Your task to perform on an android device: turn off notifications in google photos Image 0: 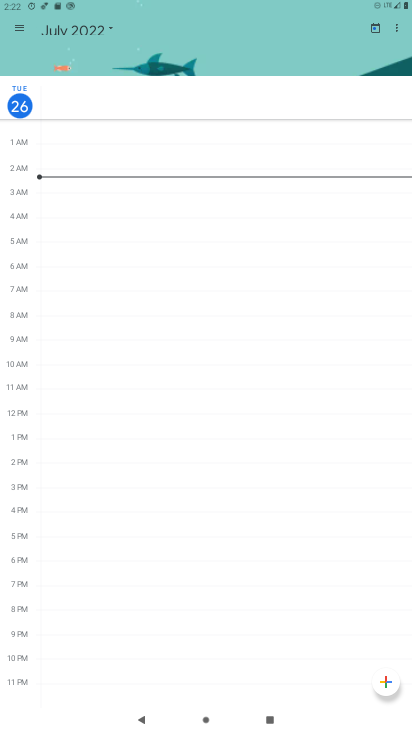
Step 0: press home button
Your task to perform on an android device: turn off notifications in google photos Image 1: 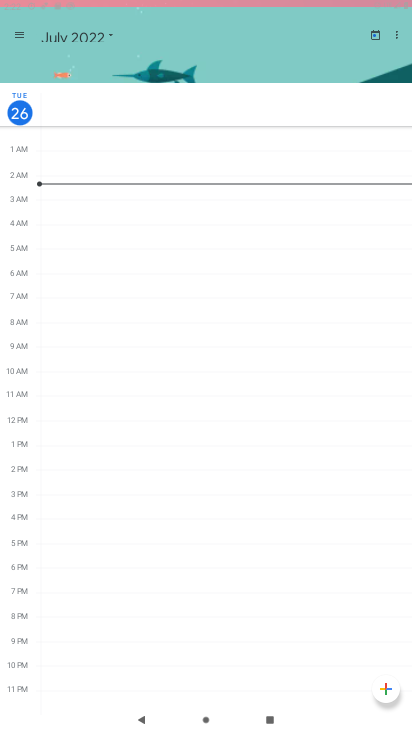
Step 1: drag from (350, 681) to (217, 34)
Your task to perform on an android device: turn off notifications in google photos Image 2: 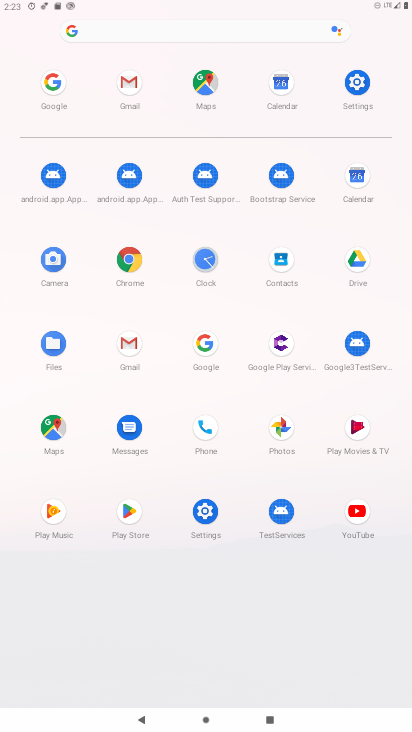
Step 2: click (277, 416)
Your task to perform on an android device: turn off notifications in google photos Image 3: 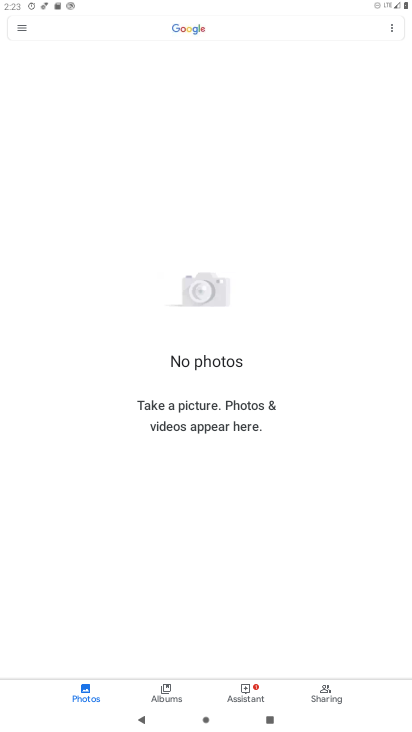
Step 3: click (15, 32)
Your task to perform on an android device: turn off notifications in google photos Image 4: 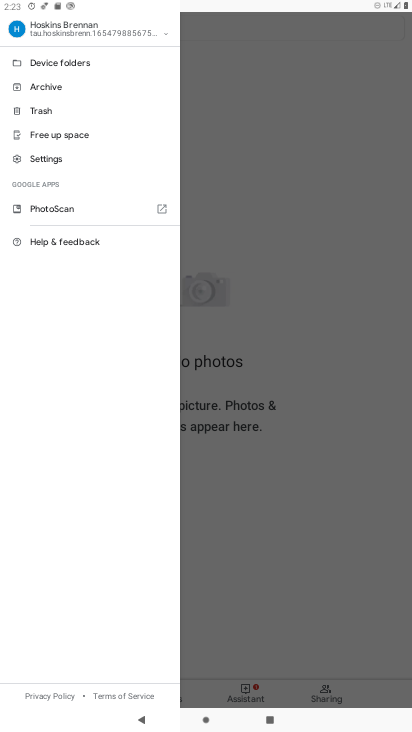
Step 4: click (52, 164)
Your task to perform on an android device: turn off notifications in google photos Image 5: 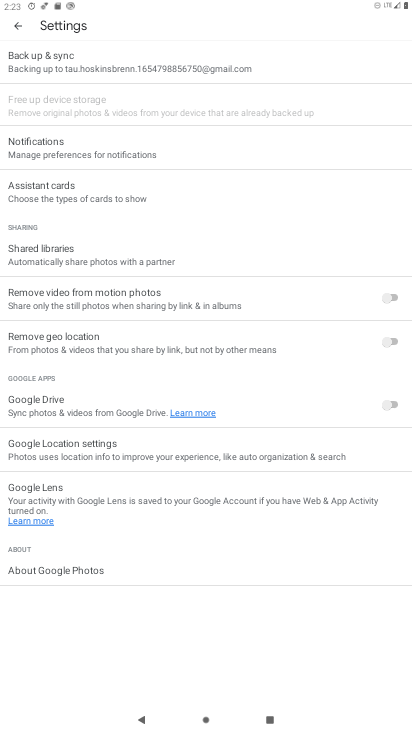
Step 5: click (56, 143)
Your task to perform on an android device: turn off notifications in google photos Image 6: 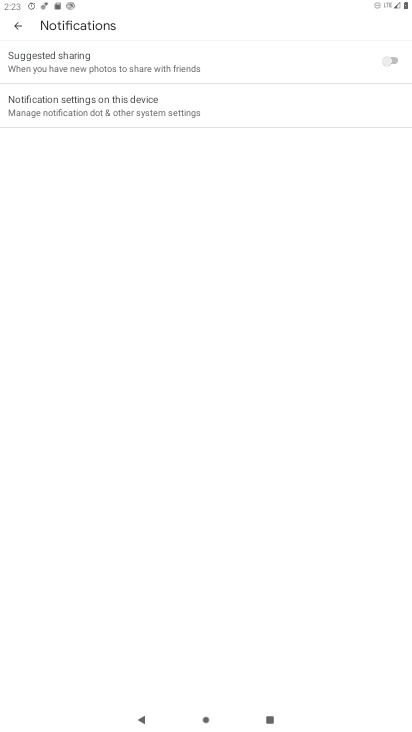
Step 6: task complete